Your task to perform on an android device: turn on location history Image 0: 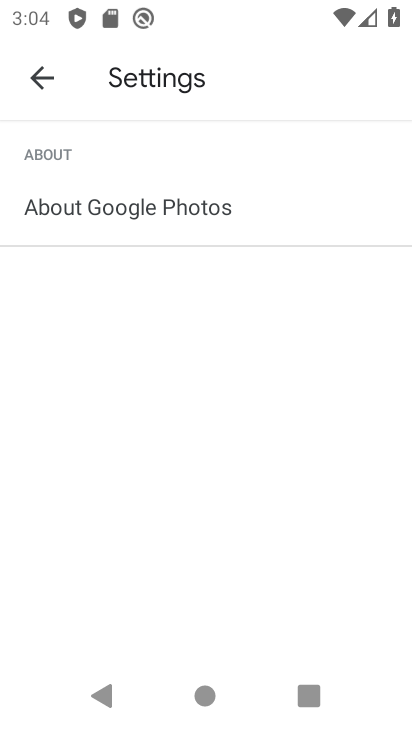
Step 0: press home button
Your task to perform on an android device: turn on location history Image 1: 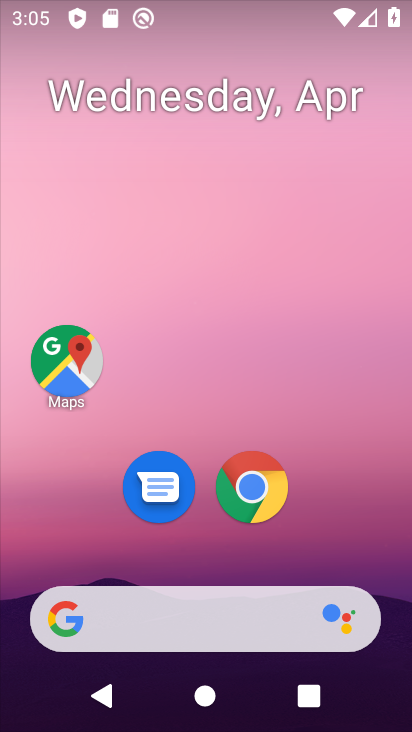
Step 1: drag from (361, 528) to (371, 184)
Your task to perform on an android device: turn on location history Image 2: 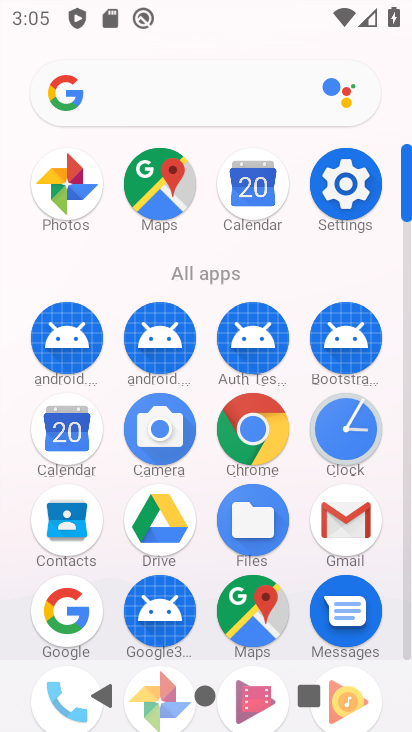
Step 2: click (341, 191)
Your task to perform on an android device: turn on location history Image 3: 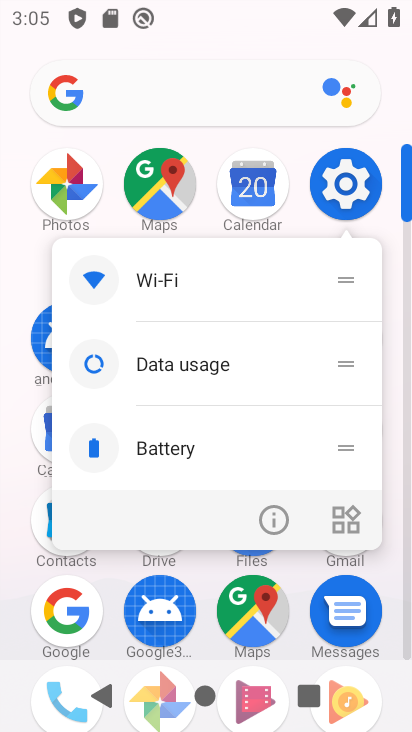
Step 3: click (339, 187)
Your task to perform on an android device: turn on location history Image 4: 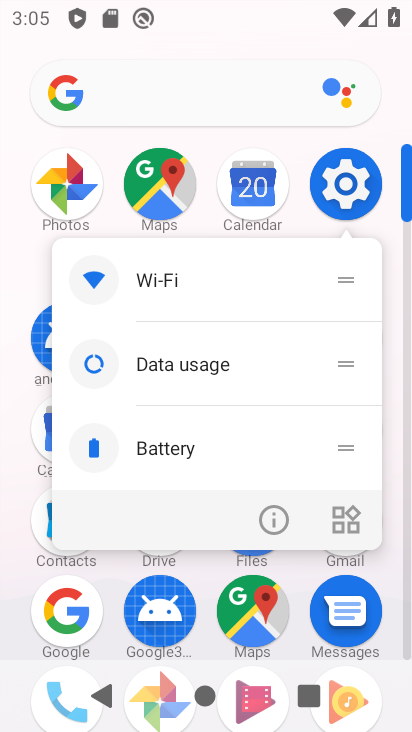
Step 4: click (343, 156)
Your task to perform on an android device: turn on location history Image 5: 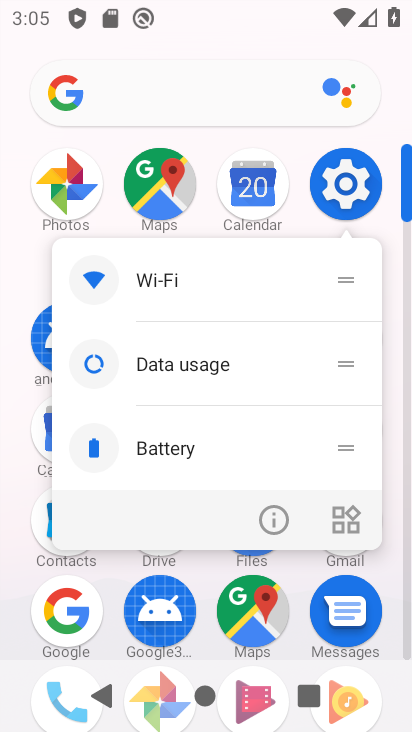
Step 5: click (333, 166)
Your task to perform on an android device: turn on location history Image 6: 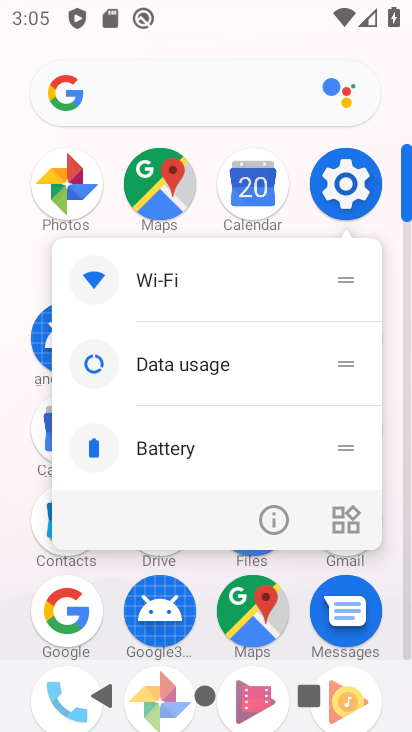
Step 6: drag from (303, 580) to (311, 255)
Your task to perform on an android device: turn on location history Image 7: 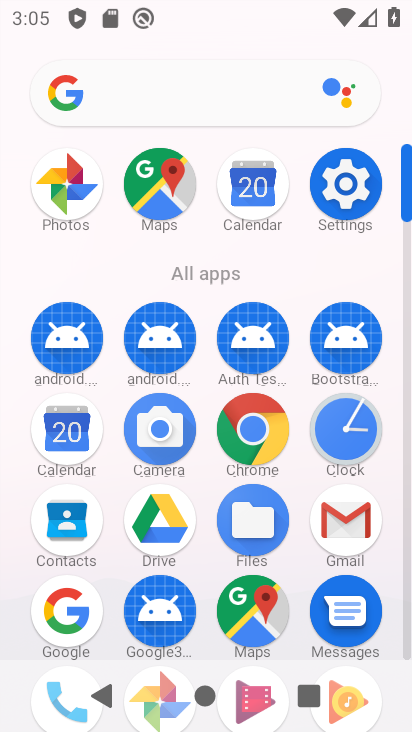
Step 7: drag from (302, 499) to (319, 274)
Your task to perform on an android device: turn on location history Image 8: 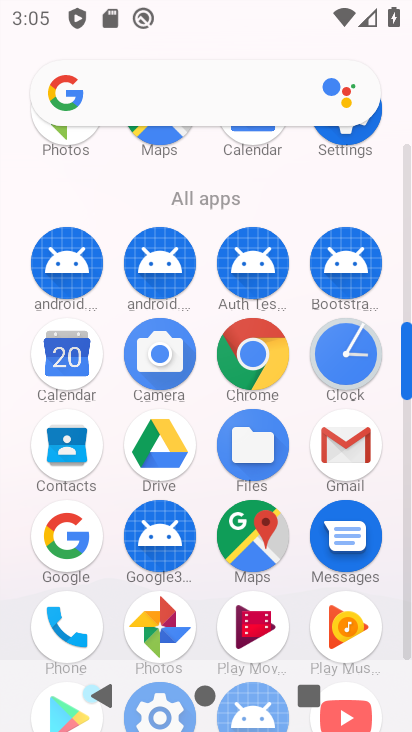
Step 8: drag from (304, 501) to (282, 275)
Your task to perform on an android device: turn on location history Image 9: 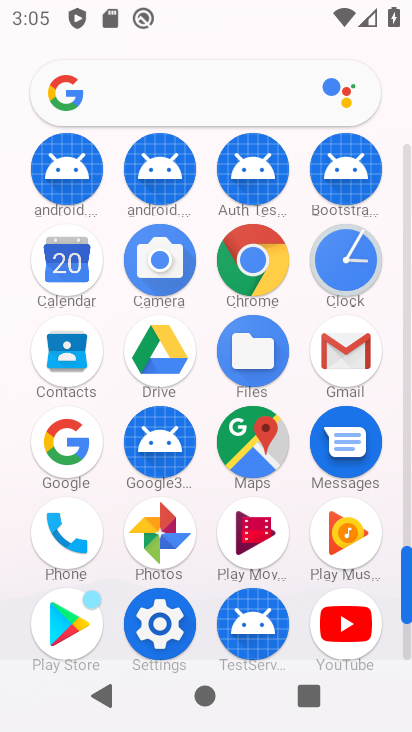
Step 9: click (166, 621)
Your task to perform on an android device: turn on location history Image 10: 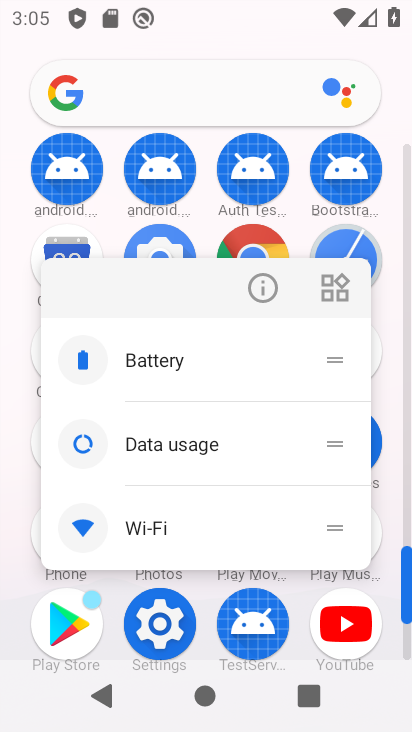
Step 10: click (173, 617)
Your task to perform on an android device: turn on location history Image 11: 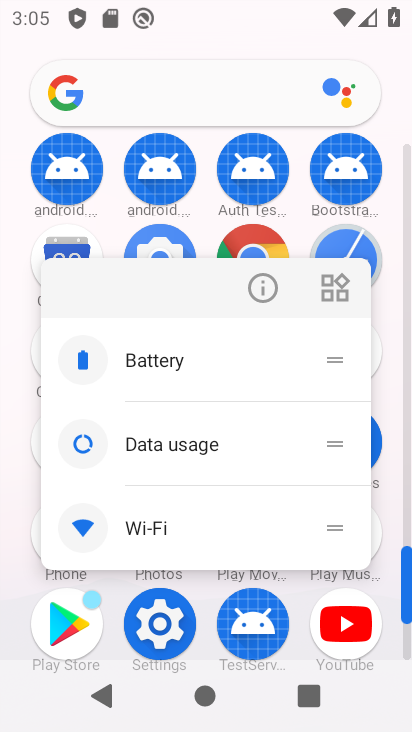
Step 11: click (173, 636)
Your task to perform on an android device: turn on location history Image 12: 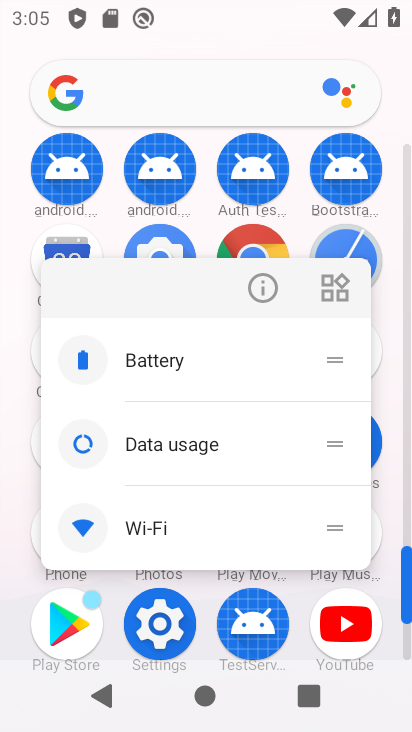
Step 12: click (146, 622)
Your task to perform on an android device: turn on location history Image 13: 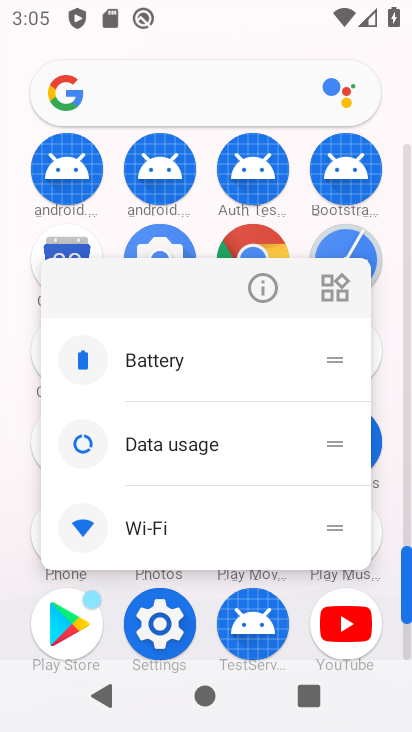
Step 13: click (144, 613)
Your task to perform on an android device: turn on location history Image 14: 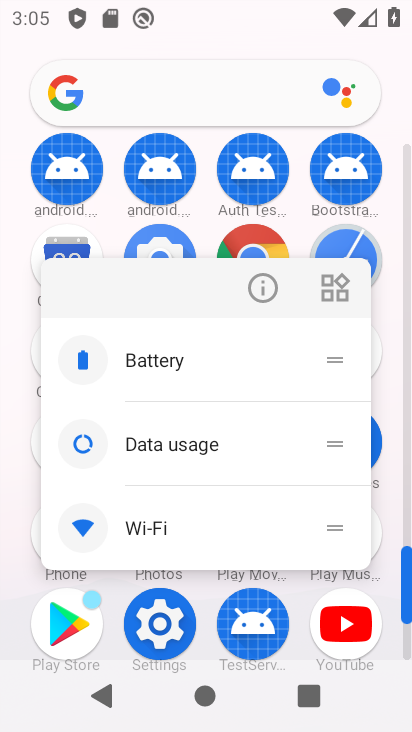
Step 14: click (142, 612)
Your task to perform on an android device: turn on location history Image 15: 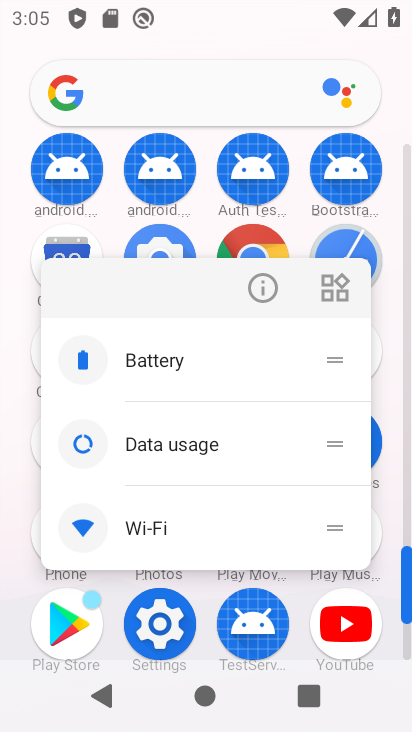
Step 15: click (142, 612)
Your task to perform on an android device: turn on location history Image 16: 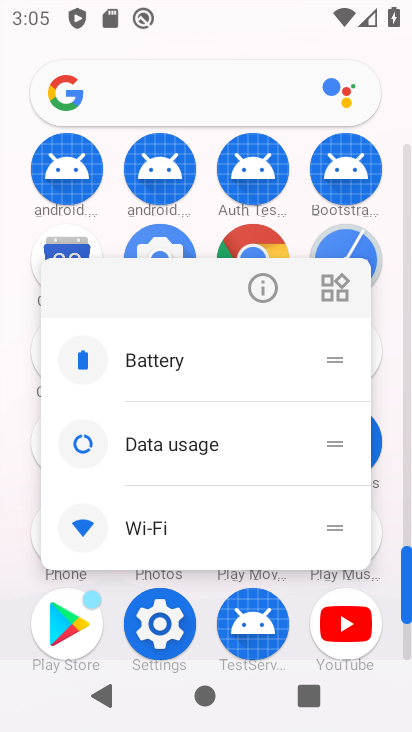
Step 16: drag from (213, 583) to (206, 634)
Your task to perform on an android device: turn on location history Image 17: 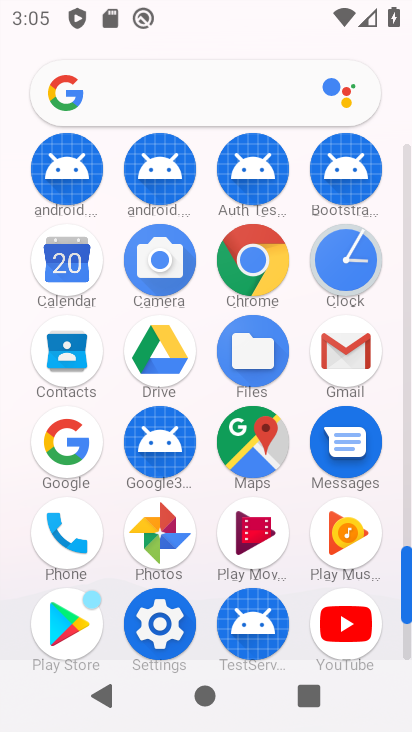
Step 17: click (274, 441)
Your task to perform on an android device: turn on location history Image 18: 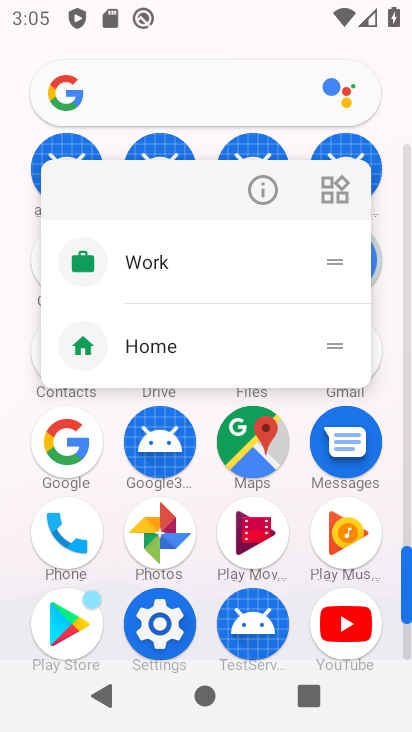
Step 18: click (167, 617)
Your task to perform on an android device: turn on location history Image 19: 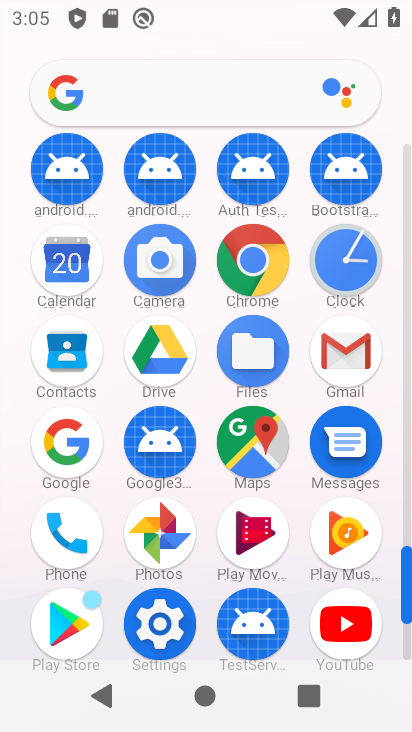
Step 19: click (170, 614)
Your task to perform on an android device: turn on location history Image 20: 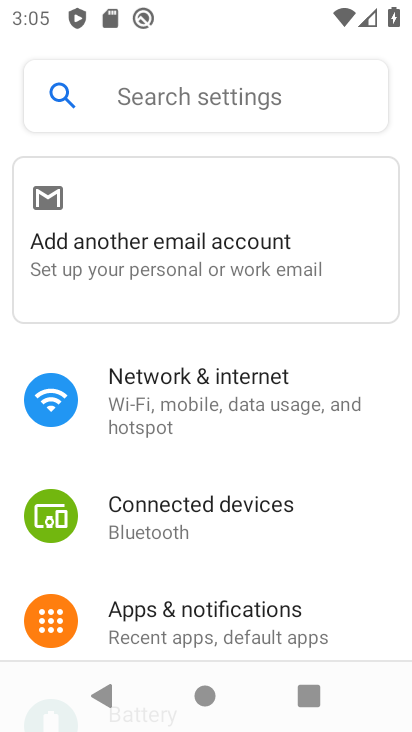
Step 20: drag from (306, 572) to (336, 264)
Your task to perform on an android device: turn on location history Image 21: 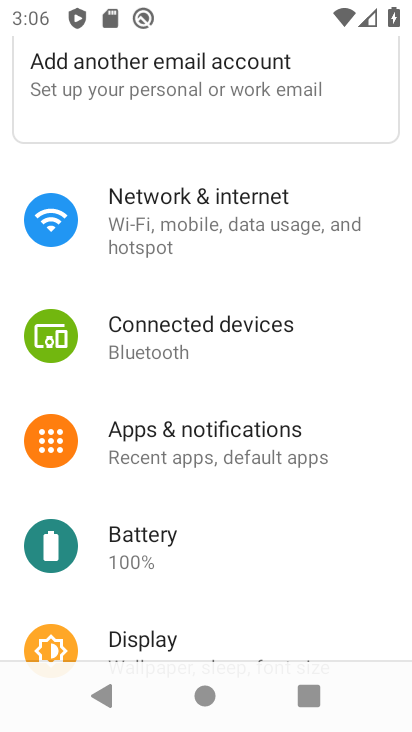
Step 21: drag from (341, 615) to (355, 278)
Your task to perform on an android device: turn on location history Image 22: 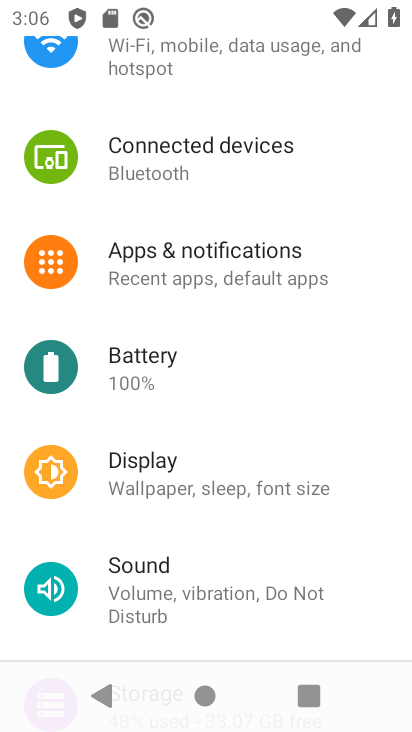
Step 22: drag from (278, 623) to (307, 319)
Your task to perform on an android device: turn on location history Image 23: 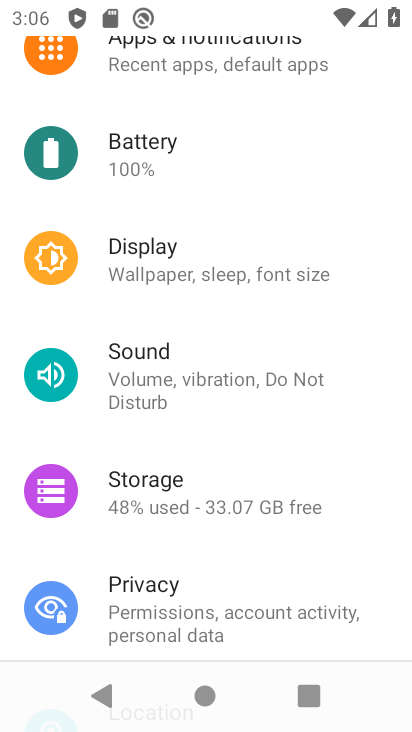
Step 23: drag from (265, 541) to (316, 268)
Your task to perform on an android device: turn on location history Image 24: 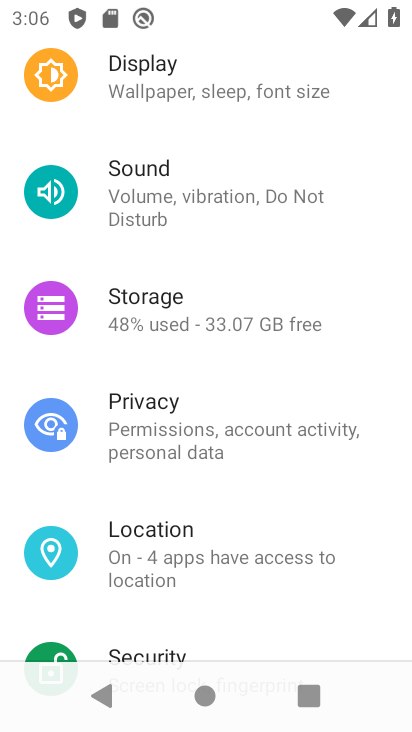
Step 24: click (223, 546)
Your task to perform on an android device: turn on location history Image 25: 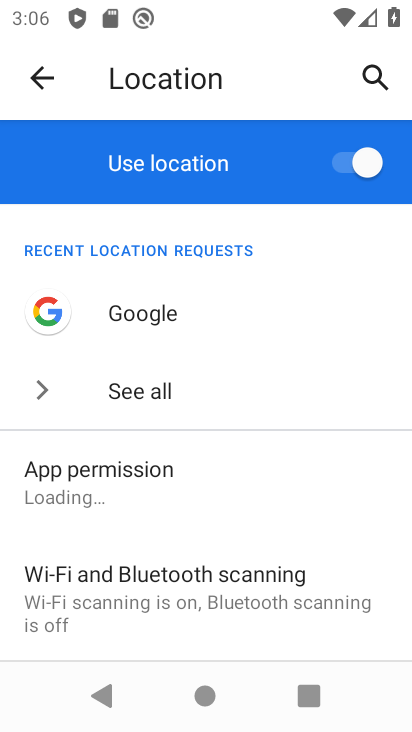
Step 25: drag from (380, 623) to (375, 400)
Your task to perform on an android device: turn on location history Image 26: 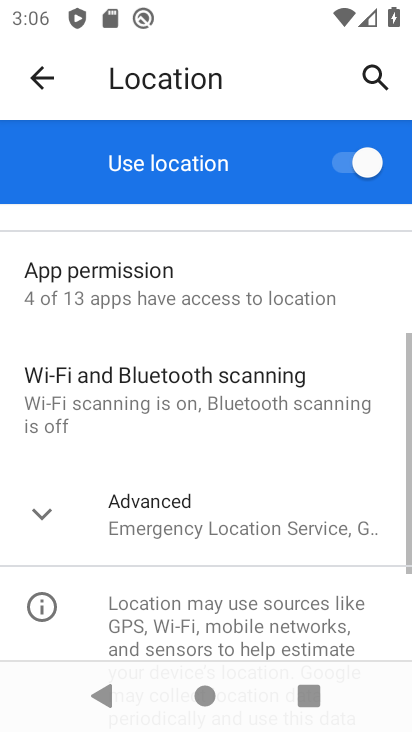
Step 26: drag from (338, 561) to (331, 354)
Your task to perform on an android device: turn on location history Image 27: 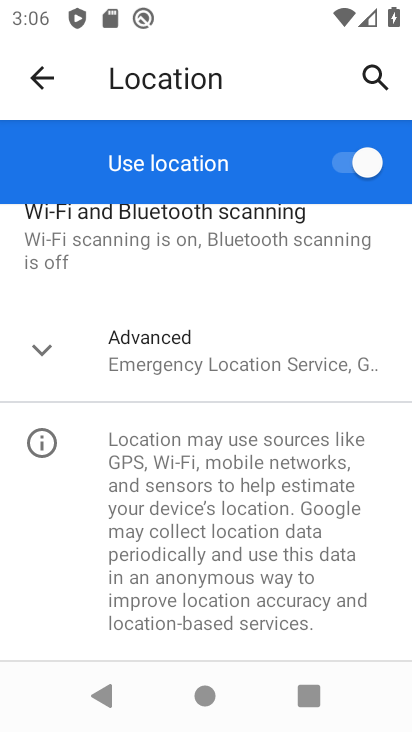
Step 27: click (304, 366)
Your task to perform on an android device: turn on location history Image 28: 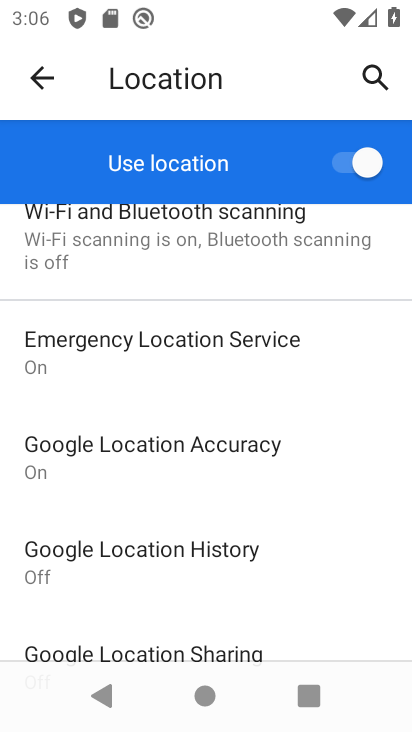
Step 28: click (158, 542)
Your task to perform on an android device: turn on location history Image 29: 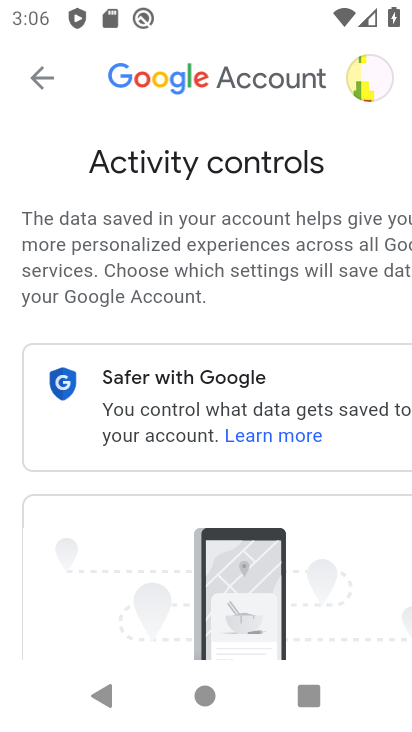
Step 29: drag from (55, 604) to (199, 310)
Your task to perform on an android device: turn on location history Image 30: 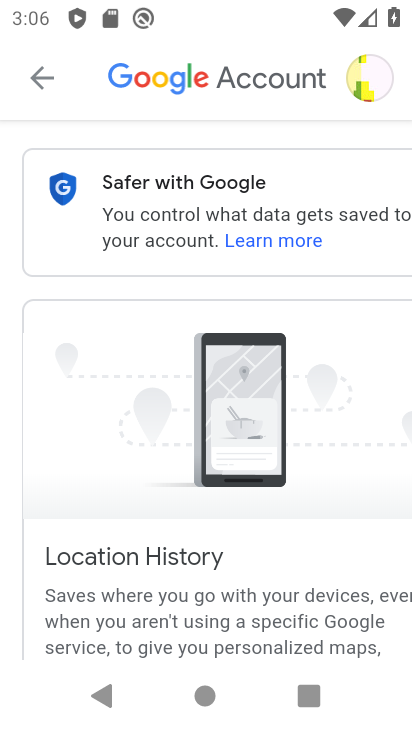
Step 30: drag from (99, 611) to (196, 254)
Your task to perform on an android device: turn on location history Image 31: 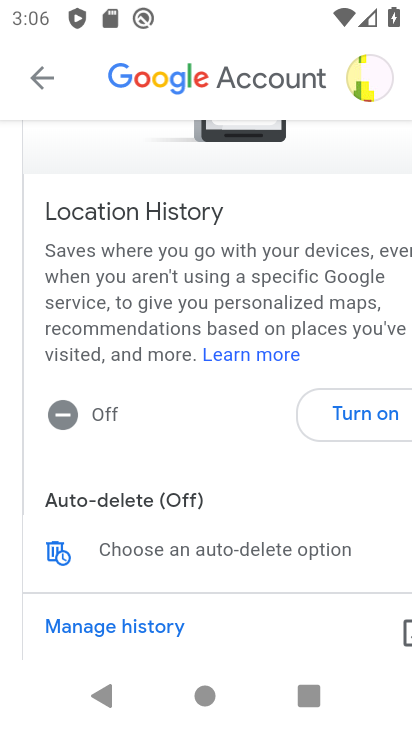
Step 31: click (345, 412)
Your task to perform on an android device: turn on location history Image 32: 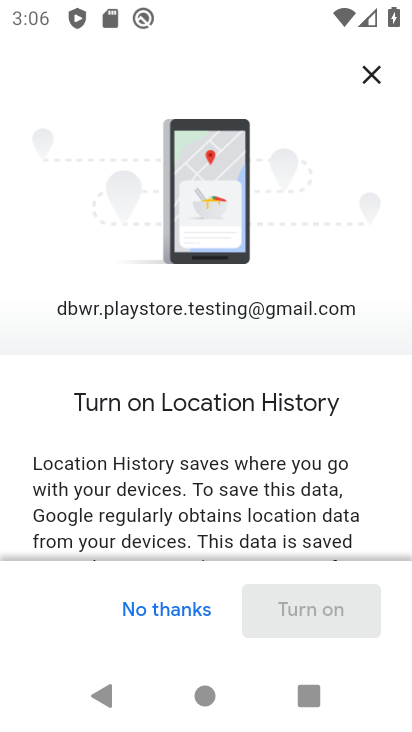
Step 32: drag from (258, 477) to (295, 261)
Your task to perform on an android device: turn on location history Image 33: 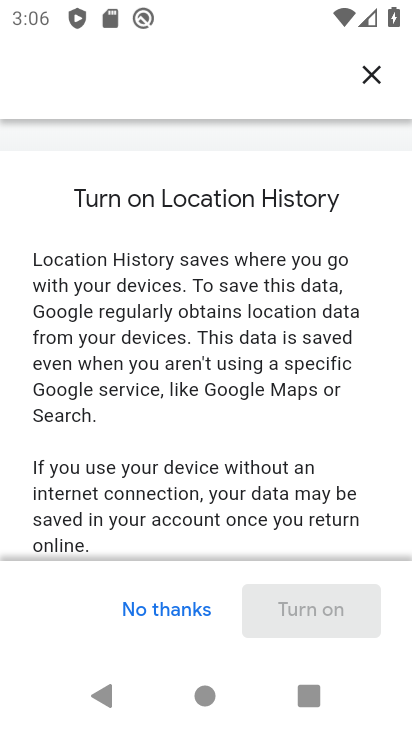
Step 33: drag from (324, 436) to (325, 228)
Your task to perform on an android device: turn on location history Image 34: 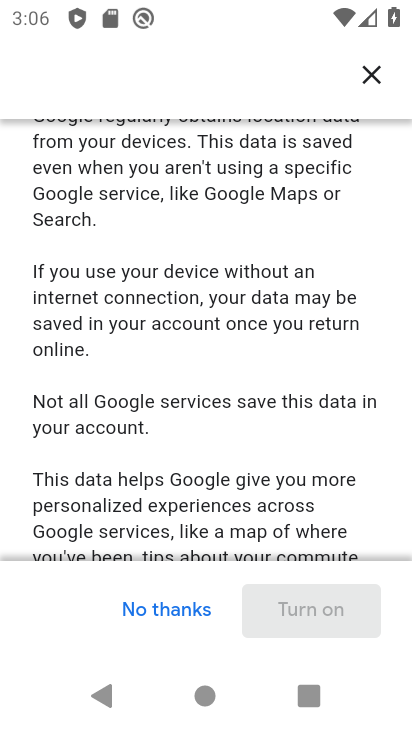
Step 34: drag from (299, 526) to (284, 186)
Your task to perform on an android device: turn on location history Image 35: 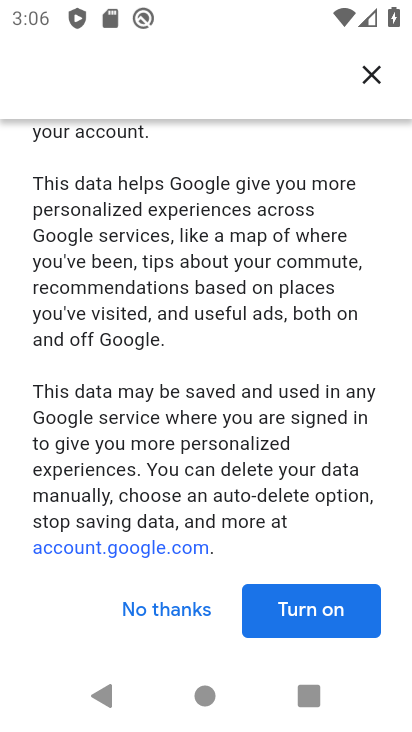
Step 35: click (294, 614)
Your task to perform on an android device: turn on location history Image 36: 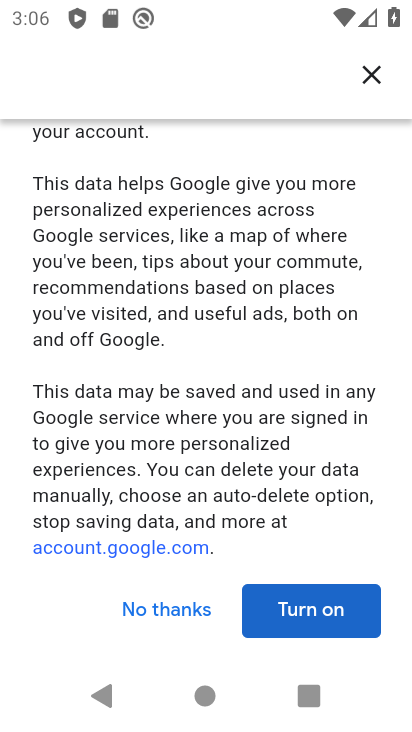
Step 36: click (293, 611)
Your task to perform on an android device: turn on location history Image 37: 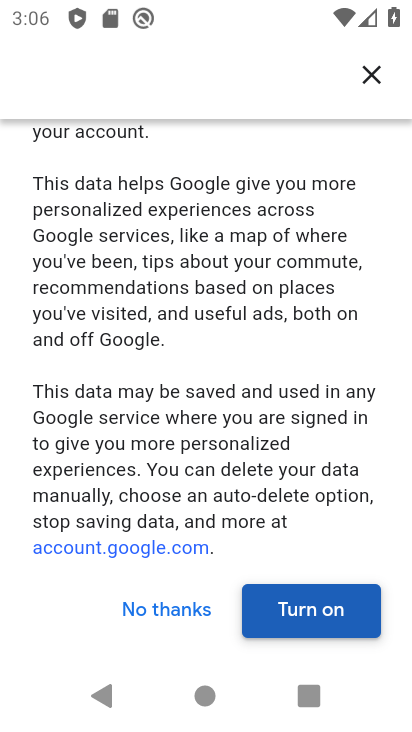
Step 37: click (294, 602)
Your task to perform on an android device: turn on location history Image 38: 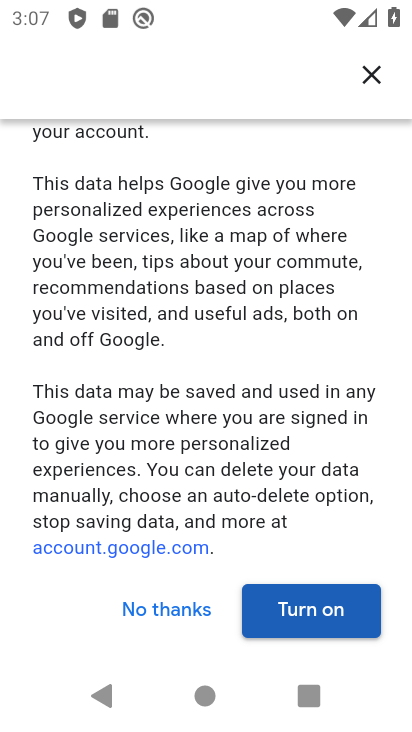
Step 38: click (304, 609)
Your task to perform on an android device: turn on location history Image 39: 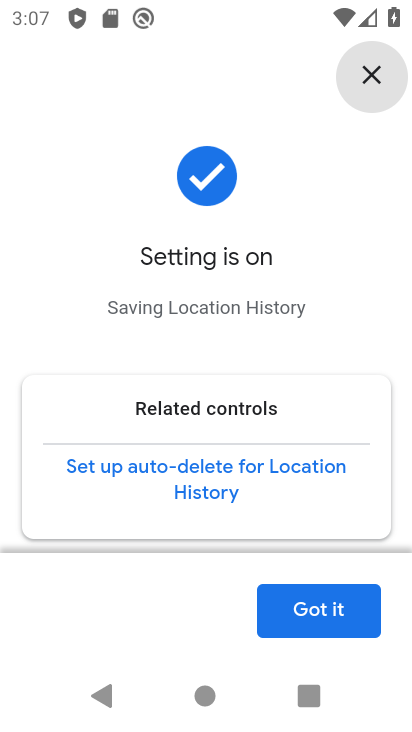
Step 39: task complete